Your task to perform on an android device: refresh tabs in the chrome app Image 0: 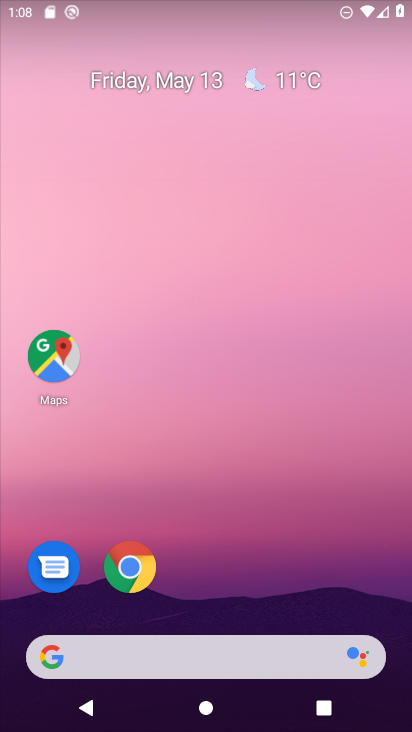
Step 0: click (131, 568)
Your task to perform on an android device: refresh tabs in the chrome app Image 1: 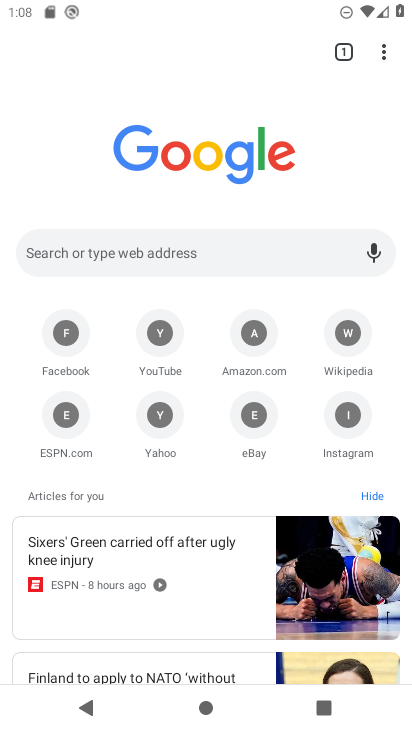
Step 1: click (382, 48)
Your task to perform on an android device: refresh tabs in the chrome app Image 2: 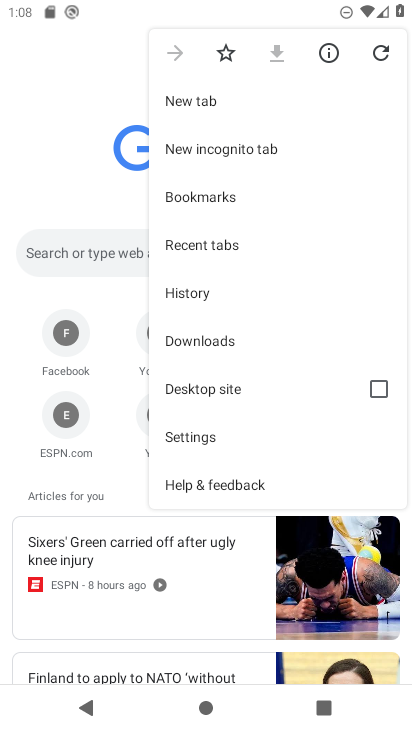
Step 2: click (246, 240)
Your task to perform on an android device: refresh tabs in the chrome app Image 3: 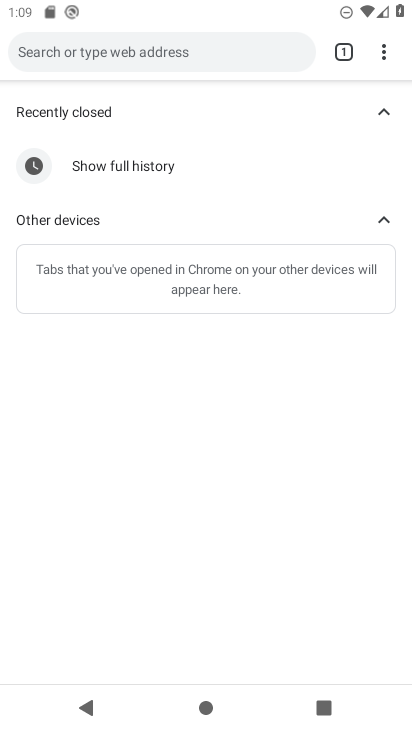
Step 3: click (381, 50)
Your task to perform on an android device: refresh tabs in the chrome app Image 4: 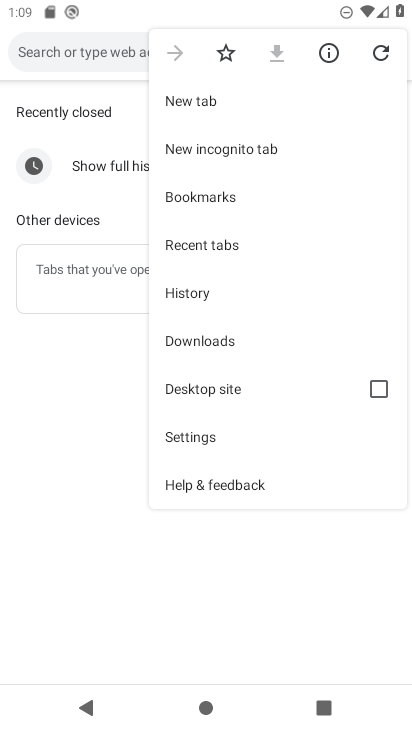
Step 4: click (380, 52)
Your task to perform on an android device: refresh tabs in the chrome app Image 5: 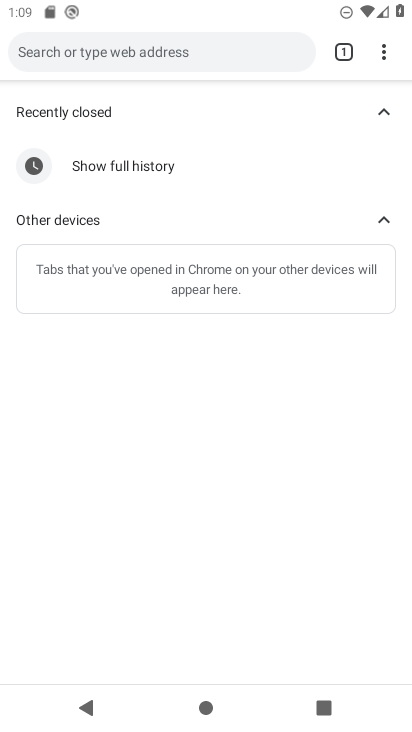
Step 5: task complete